Your task to perform on an android device: Search for pizza restaurants on Maps Image 0: 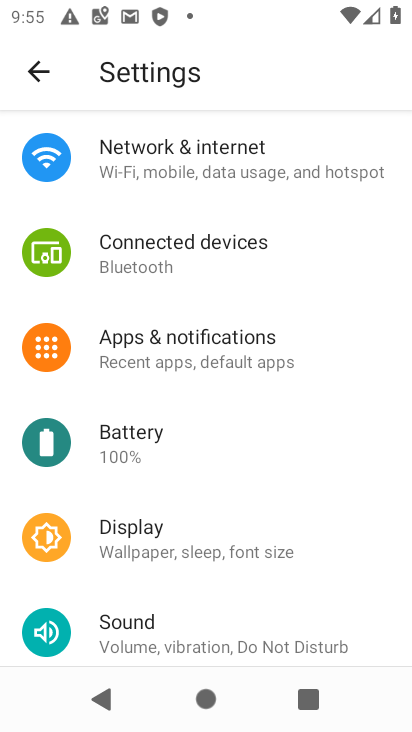
Step 0: press back button
Your task to perform on an android device: Search for pizza restaurants on Maps Image 1: 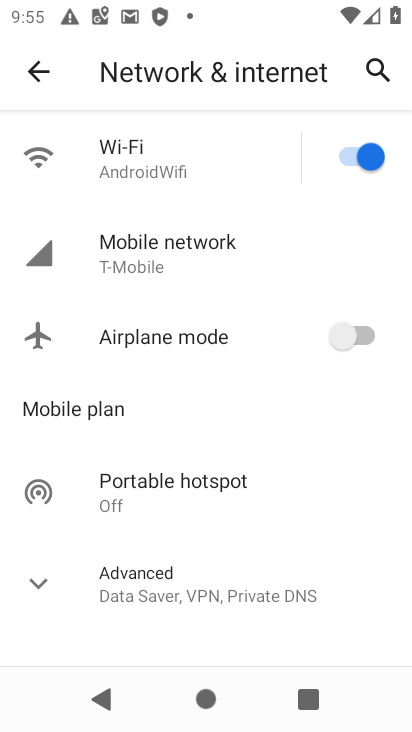
Step 1: press back button
Your task to perform on an android device: Search for pizza restaurants on Maps Image 2: 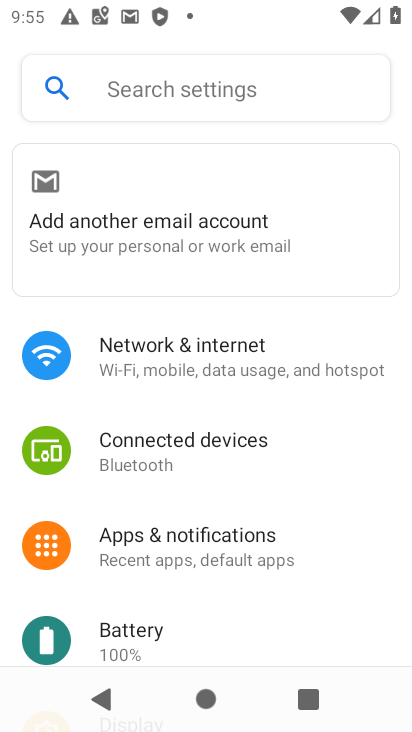
Step 2: click (206, 82)
Your task to perform on an android device: Search for pizza restaurants on Maps Image 3: 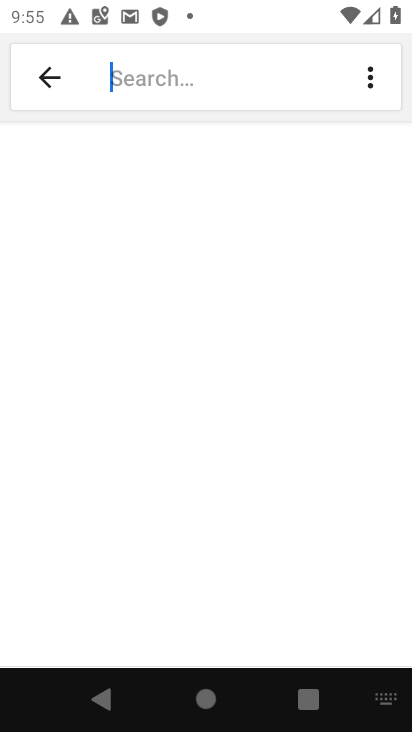
Step 3: press back button
Your task to perform on an android device: Search for pizza restaurants on Maps Image 4: 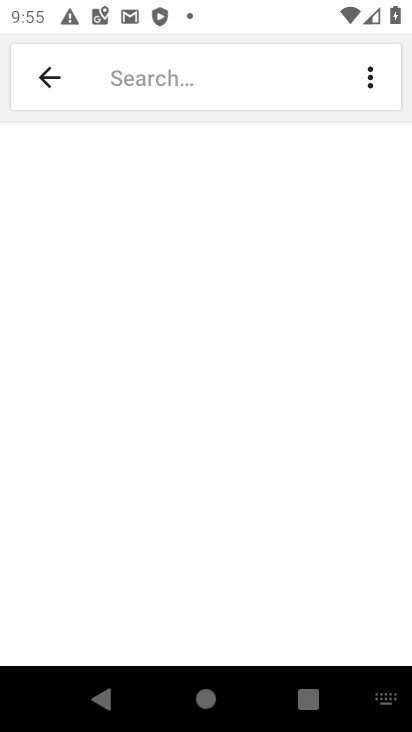
Step 4: press back button
Your task to perform on an android device: Search for pizza restaurants on Maps Image 5: 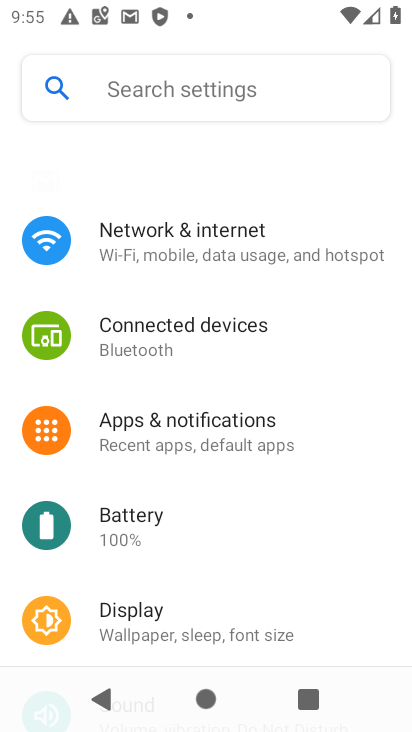
Step 5: press back button
Your task to perform on an android device: Search for pizza restaurants on Maps Image 6: 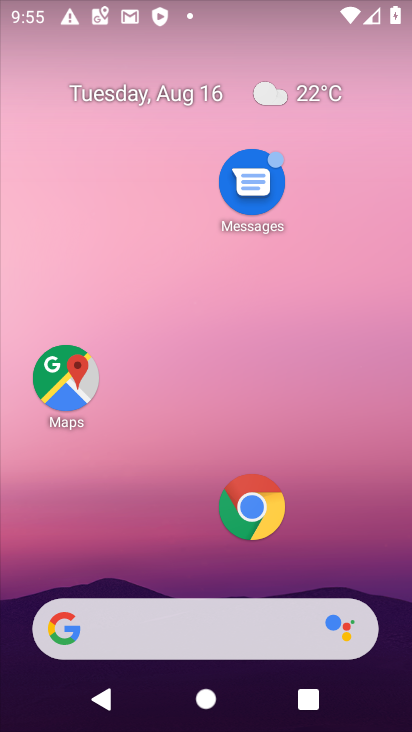
Step 6: drag from (98, 551) to (172, 72)
Your task to perform on an android device: Search for pizza restaurants on Maps Image 7: 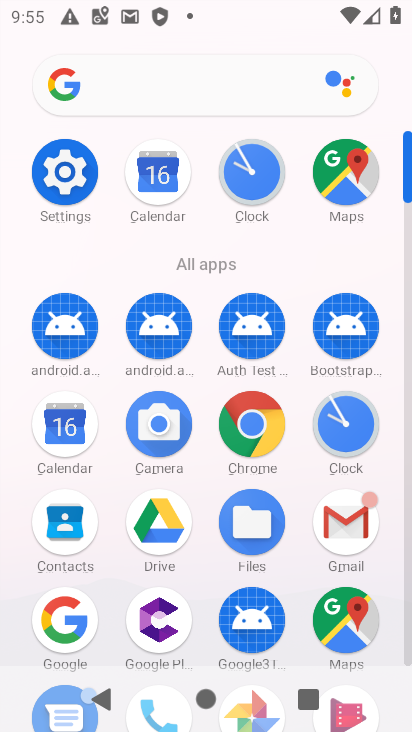
Step 7: click (339, 166)
Your task to perform on an android device: Search for pizza restaurants on Maps Image 8: 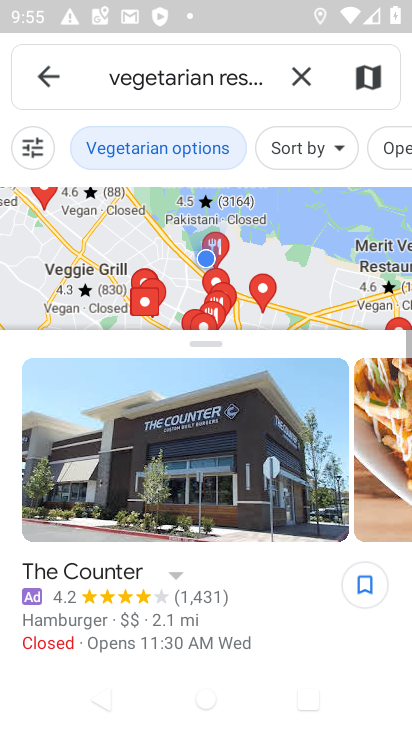
Step 8: click (294, 79)
Your task to perform on an android device: Search for pizza restaurants on Maps Image 9: 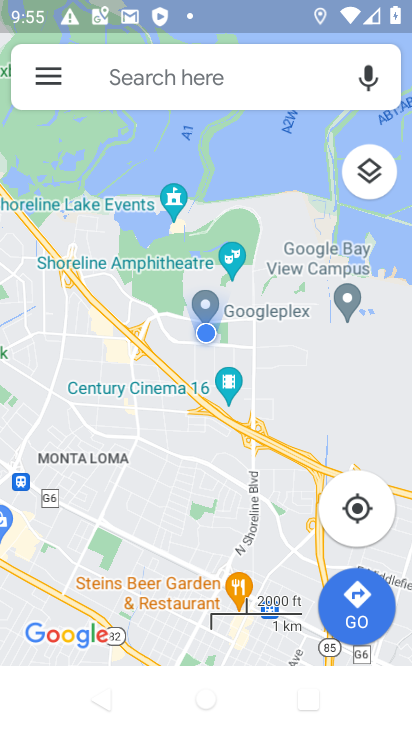
Step 9: click (202, 81)
Your task to perform on an android device: Search for pizza restaurants on Maps Image 10: 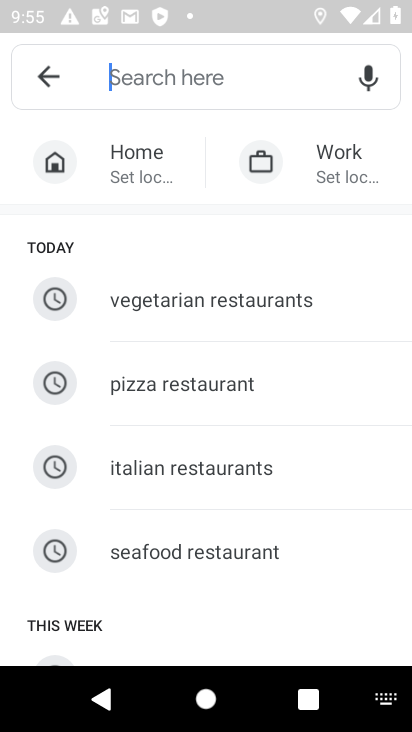
Step 10: click (144, 382)
Your task to perform on an android device: Search for pizza restaurants on Maps Image 11: 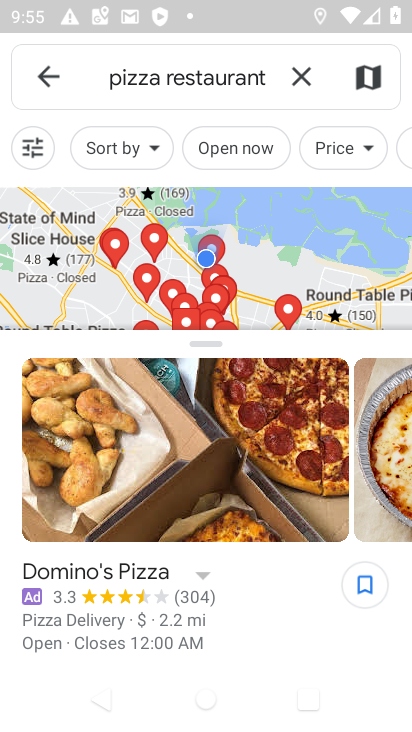
Step 11: task complete